Your task to perform on an android device: see creations saved in the google photos Image 0: 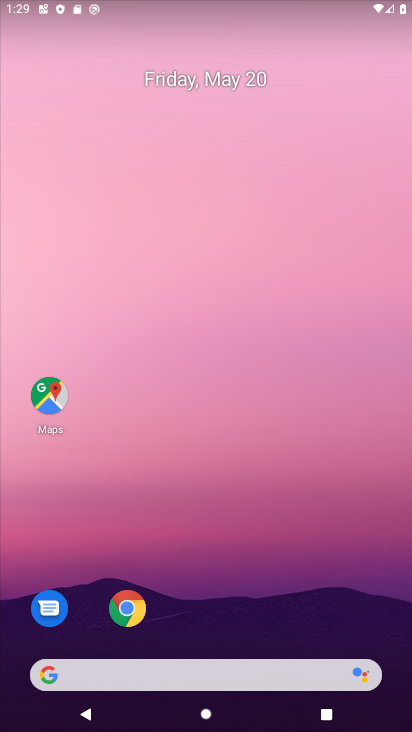
Step 0: drag from (196, 596) to (267, 142)
Your task to perform on an android device: see creations saved in the google photos Image 1: 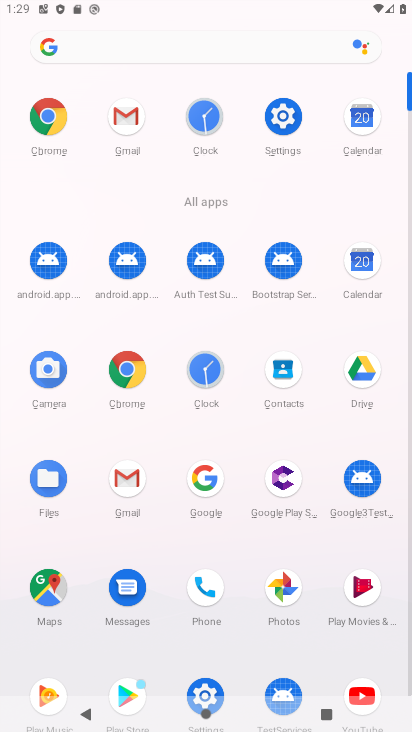
Step 1: click (279, 582)
Your task to perform on an android device: see creations saved in the google photos Image 2: 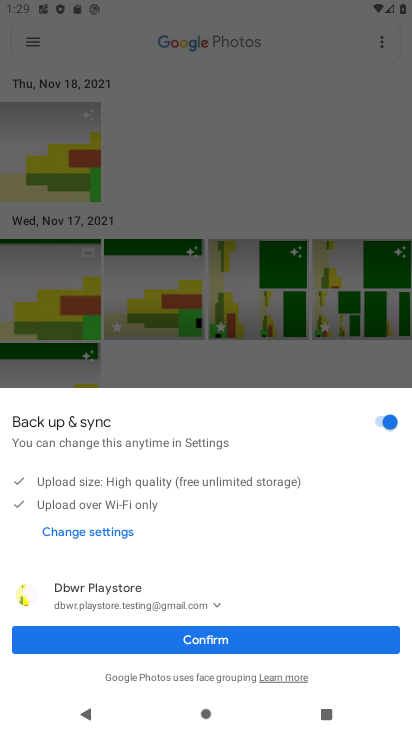
Step 2: click (202, 643)
Your task to perform on an android device: see creations saved in the google photos Image 3: 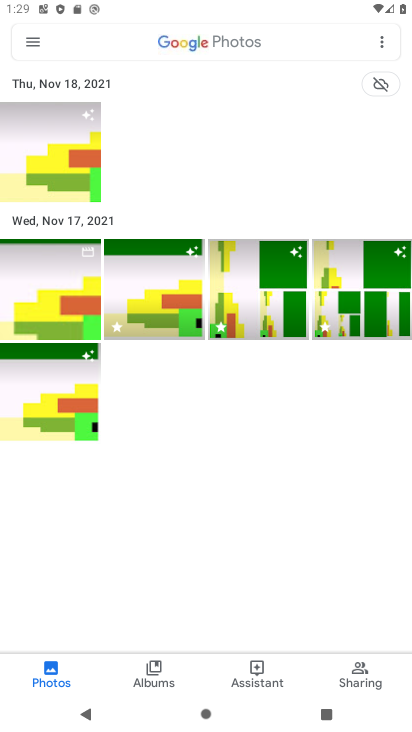
Step 3: click (33, 41)
Your task to perform on an android device: see creations saved in the google photos Image 4: 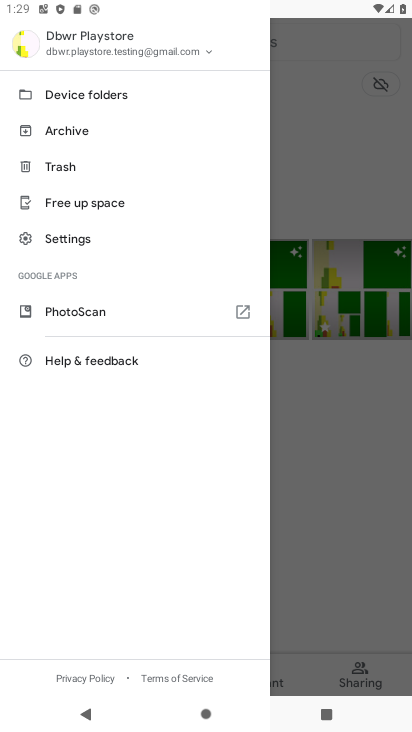
Step 4: click (68, 123)
Your task to perform on an android device: see creations saved in the google photos Image 5: 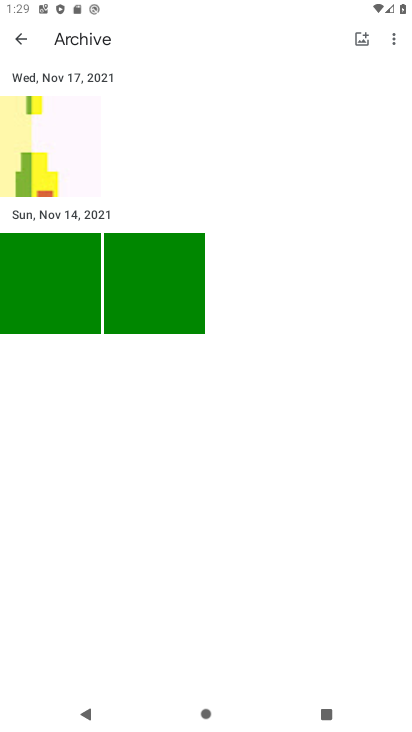
Step 5: task complete